Your task to perform on an android device: Open notification settings Image 0: 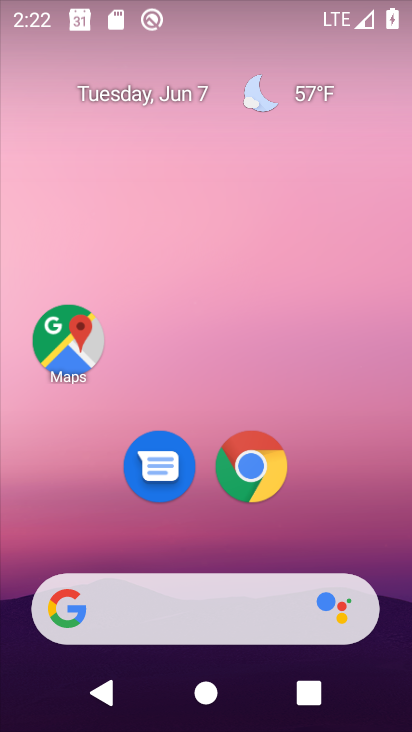
Step 0: drag from (197, 540) to (287, 58)
Your task to perform on an android device: Open notification settings Image 1: 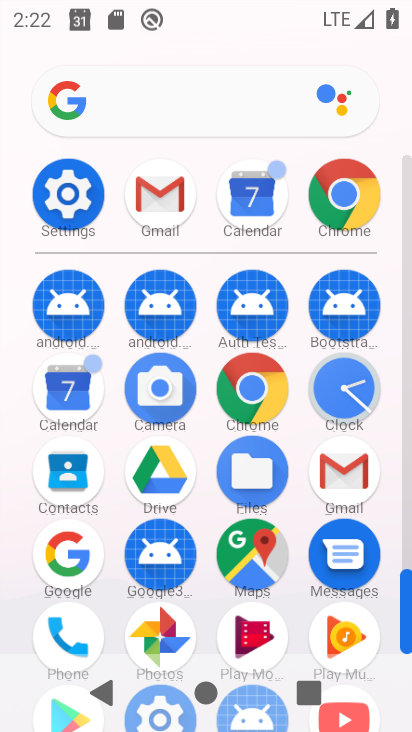
Step 1: click (66, 190)
Your task to perform on an android device: Open notification settings Image 2: 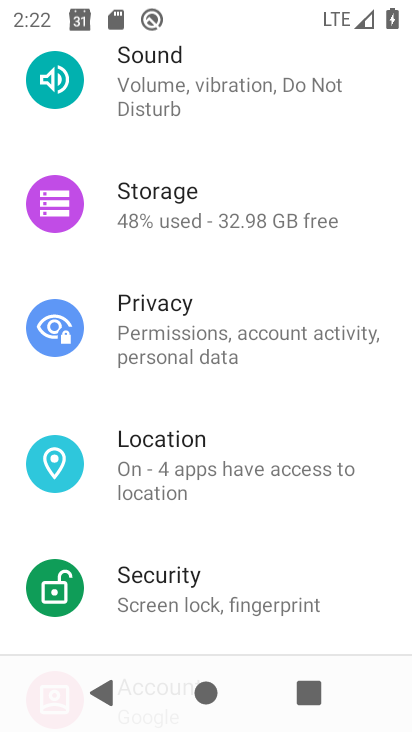
Step 2: drag from (282, 160) to (208, 652)
Your task to perform on an android device: Open notification settings Image 3: 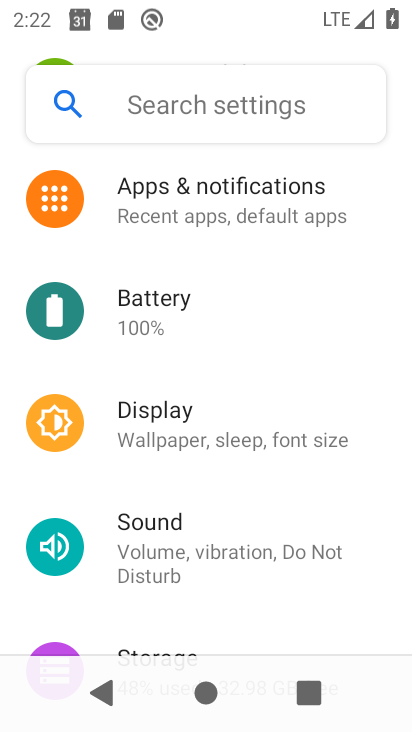
Step 3: click (233, 190)
Your task to perform on an android device: Open notification settings Image 4: 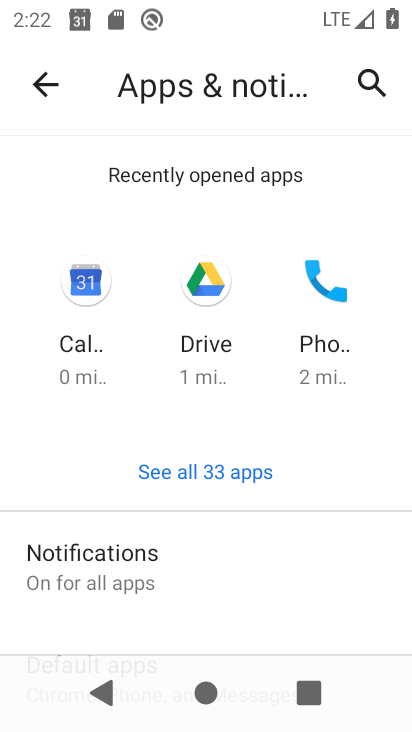
Step 4: task complete